Your task to perform on an android device: turn off improve location accuracy Image 0: 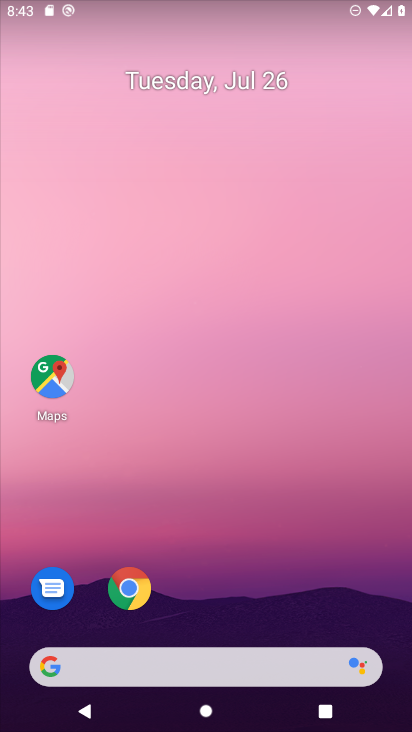
Step 0: drag from (248, 599) to (269, 3)
Your task to perform on an android device: turn off improve location accuracy Image 1: 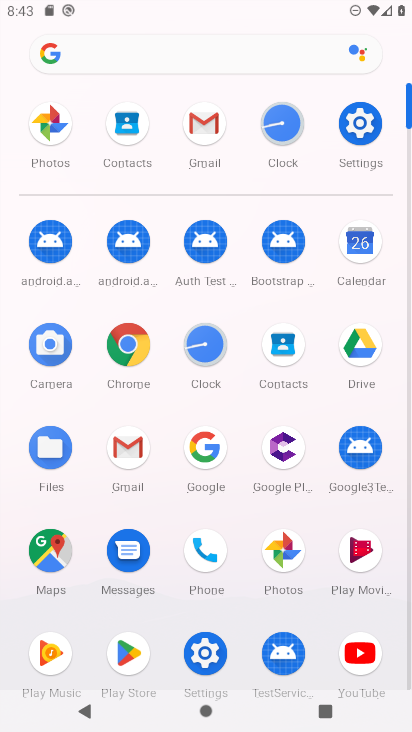
Step 1: click (351, 145)
Your task to perform on an android device: turn off improve location accuracy Image 2: 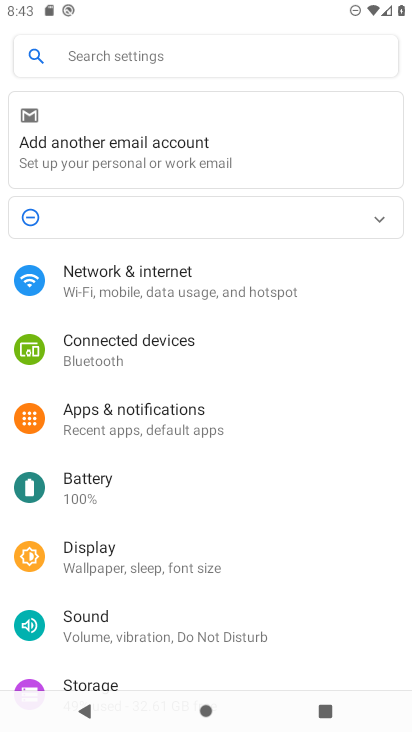
Step 2: drag from (227, 547) to (188, 163)
Your task to perform on an android device: turn off improve location accuracy Image 3: 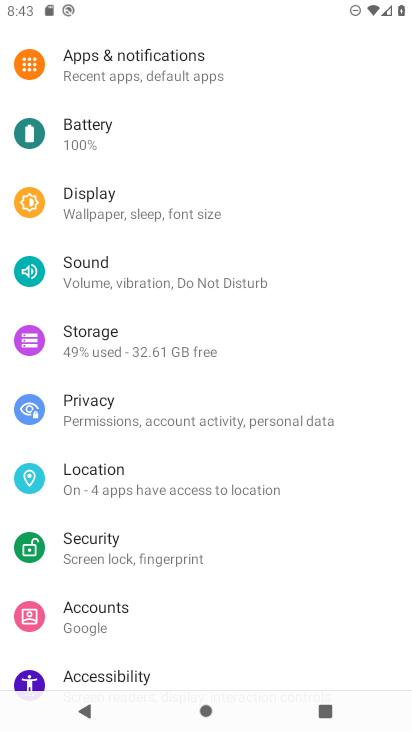
Step 3: click (92, 475)
Your task to perform on an android device: turn off improve location accuracy Image 4: 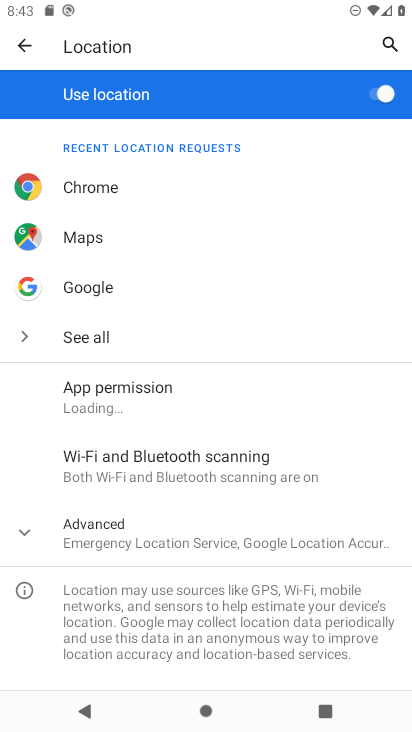
Step 4: click (18, 535)
Your task to perform on an android device: turn off improve location accuracy Image 5: 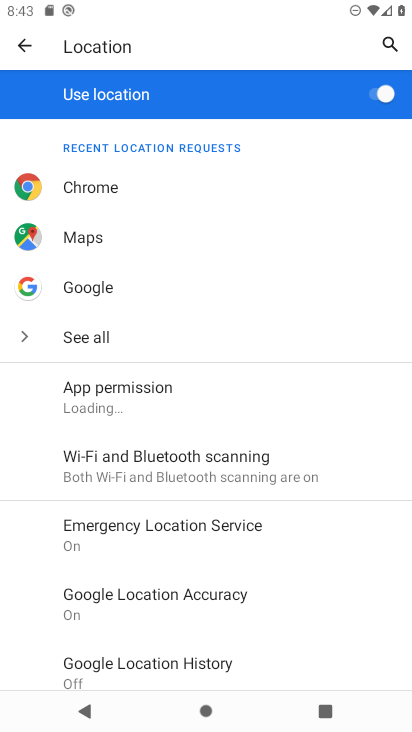
Step 5: click (152, 593)
Your task to perform on an android device: turn off improve location accuracy Image 6: 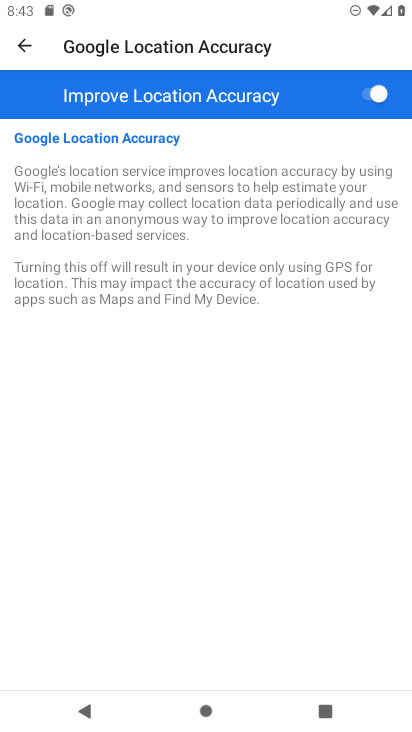
Step 6: click (380, 91)
Your task to perform on an android device: turn off improve location accuracy Image 7: 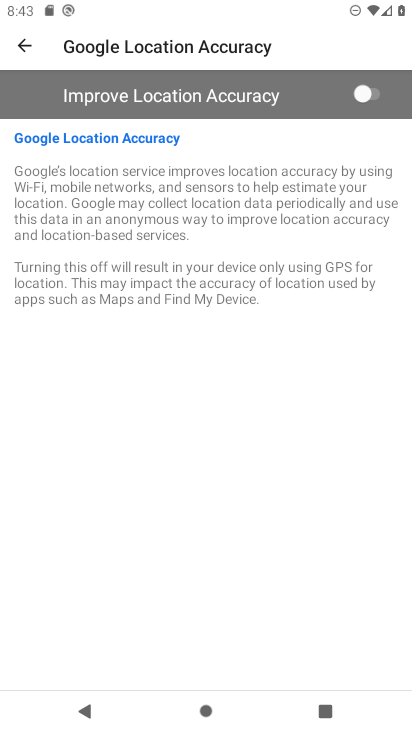
Step 7: task complete